Your task to perform on an android device: Open Android settings Image 0: 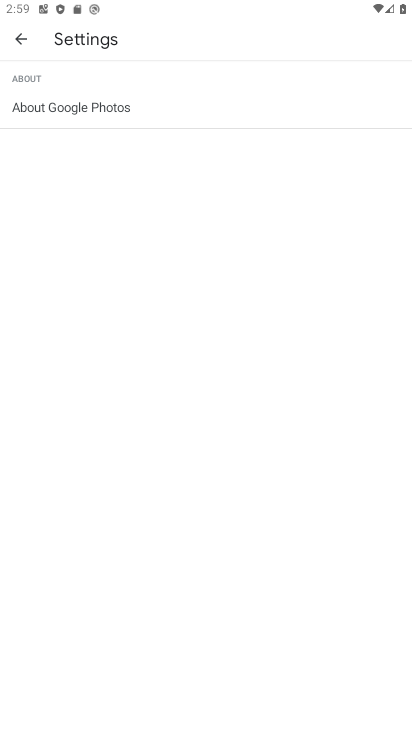
Step 0: press home button
Your task to perform on an android device: Open Android settings Image 1: 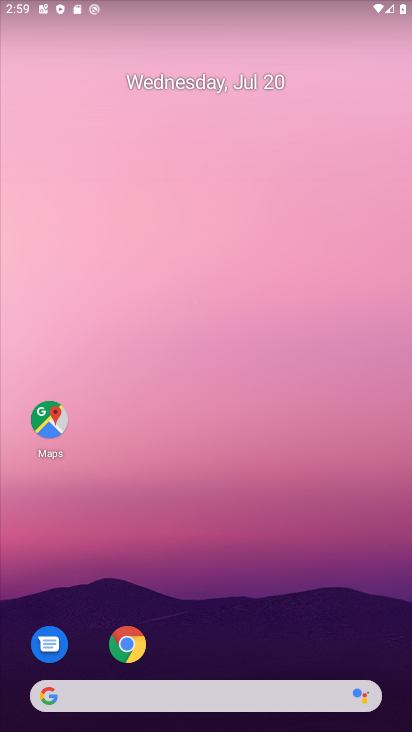
Step 1: drag from (181, 677) to (182, 169)
Your task to perform on an android device: Open Android settings Image 2: 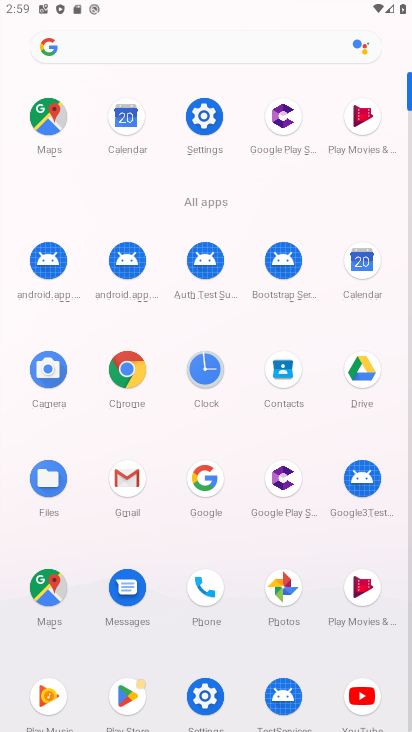
Step 2: click (193, 125)
Your task to perform on an android device: Open Android settings Image 3: 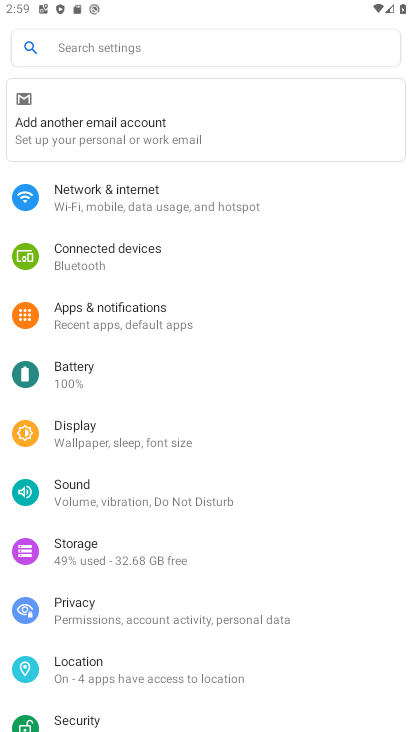
Step 3: task complete